Your task to perform on an android device: Open the map Image 0: 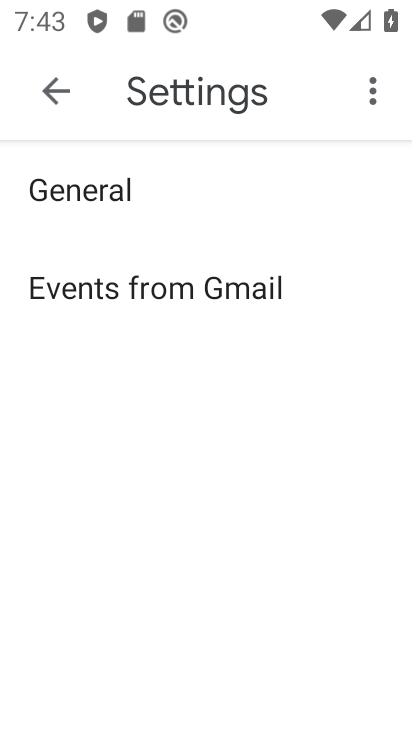
Step 0: press home button
Your task to perform on an android device: Open the map Image 1: 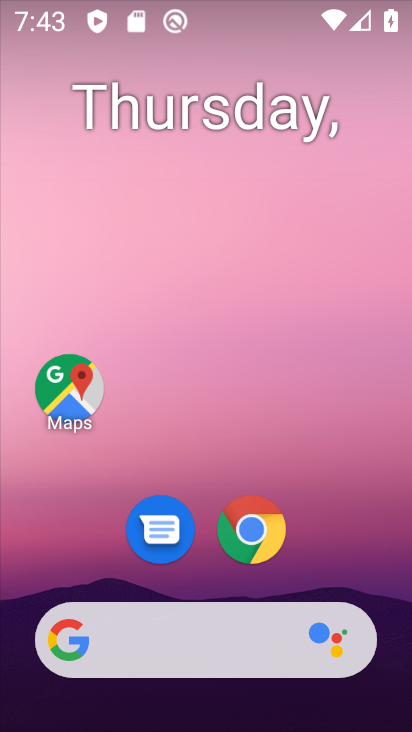
Step 1: click (70, 412)
Your task to perform on an android device: Open the map Image 2: 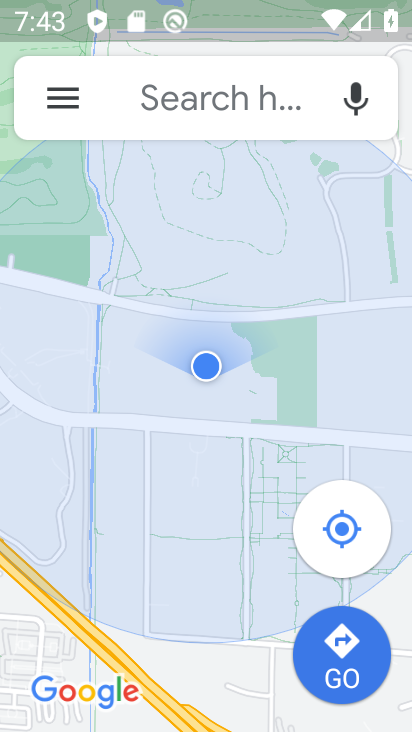
Step 2: task complete